Your task to perform on an android device: Go to wifi settings Image 0: 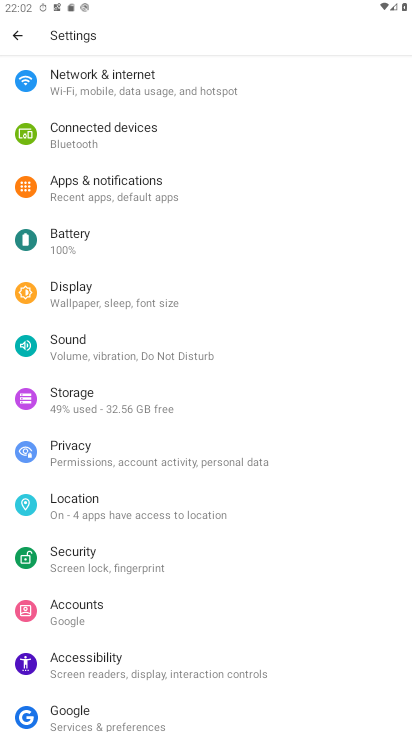
Step 0: click (125, 84)
Your task to perform on an android device: Go to wifi settings Image 1: 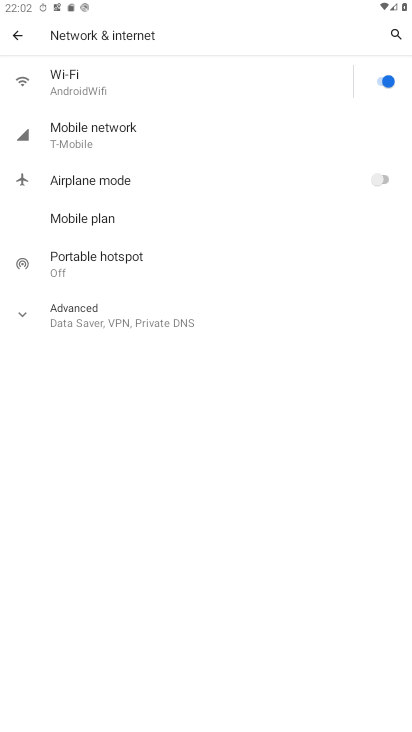
Step 1: click (67, 87)
Your task to perform on an android device: Go to wifi settings Image 2: 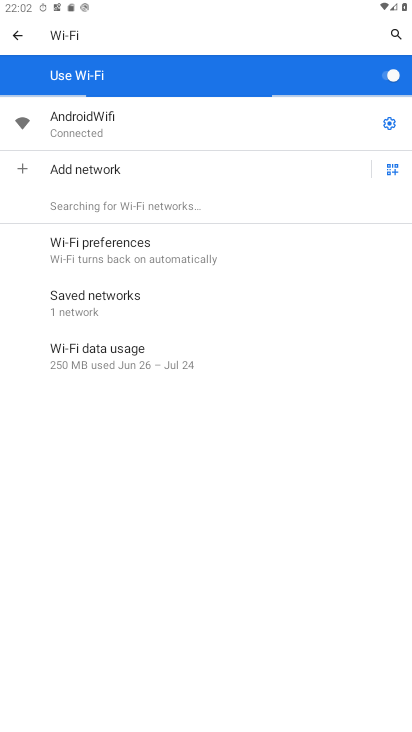
Step 2: task complete